Your task to perform on an android device: What's on my calendar tomorrow? Image 0: 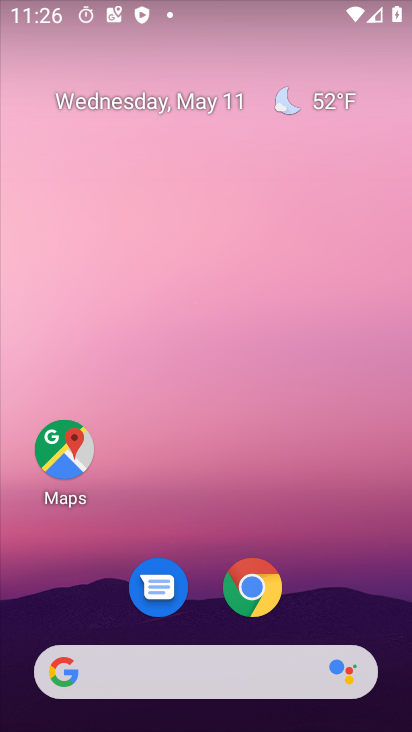
Step 0: drag from (201, 718) to (226, 320)
Your task to perform on an android device: What's on my calendar tomorrow? Image 1: 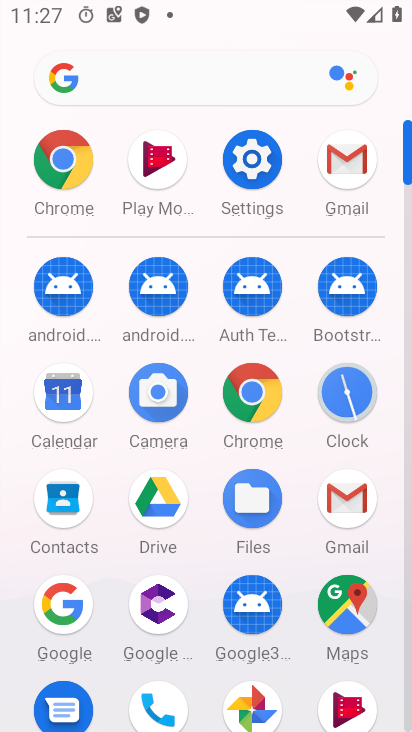
Step 1: click (57, 419)
Your task to perform on an android device: What's on my calendar tomorrow? Image 2: 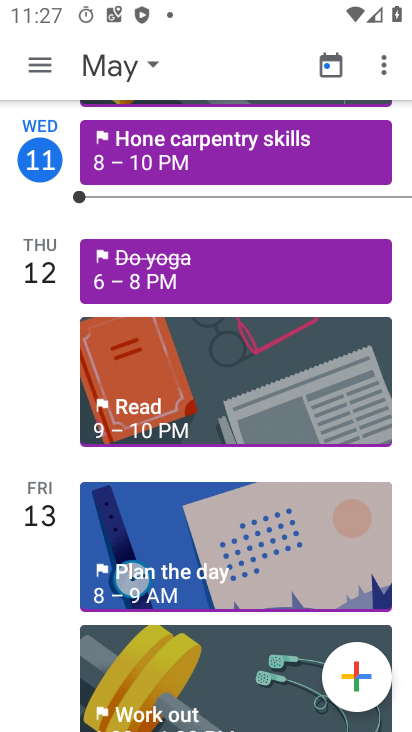
Step 2: task complete